Your task to perform on an android device: Show me popular videos on Youtube Image 0: 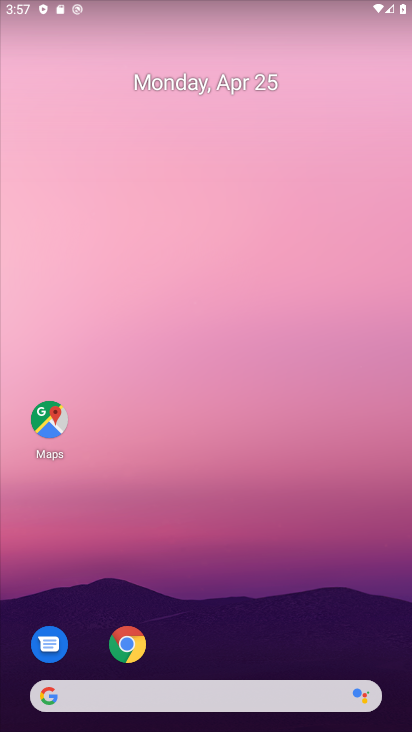
Step 0: drag from (222, 639) to (222, 146)
Your task to perform on an android device: Show me popular videos on Youtube Image 1: 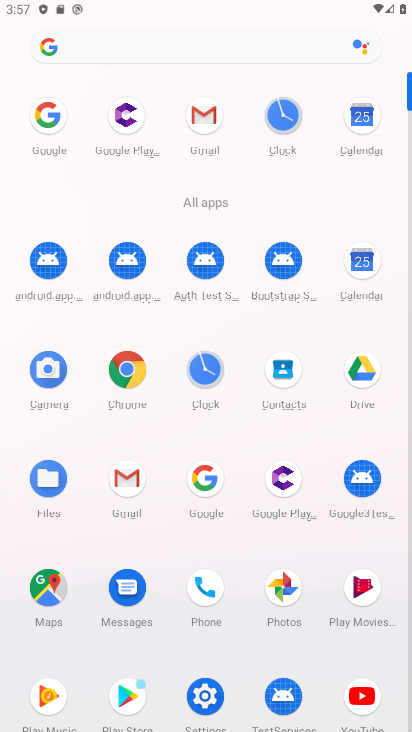
Step 1: click (348, 700)
Your task to perform on an android device: Show me popular videos on Youtube Image 2: 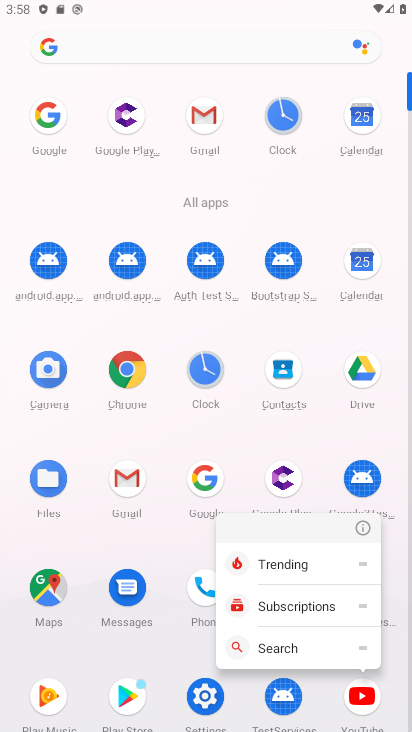
Step 2: click (358, 693)
Your task to perform on an android device: Show me popular videos on Youtube Image 3: 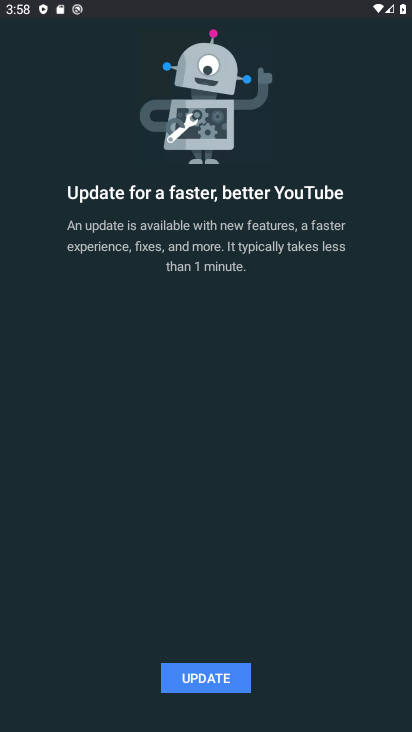
Step 3: click (182, 679)
Your task to perform on an android device: Show me popular videos on Youtube Image 4: 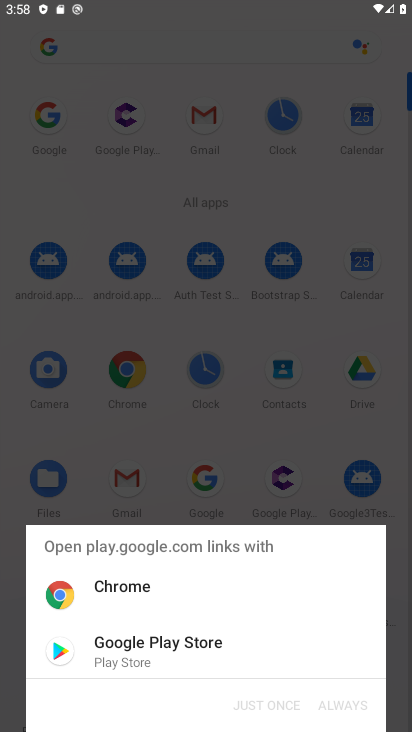
Step 4: click (125, 643)
Your task to perform on an android device: Show me popular videos on Youtube Image 5: 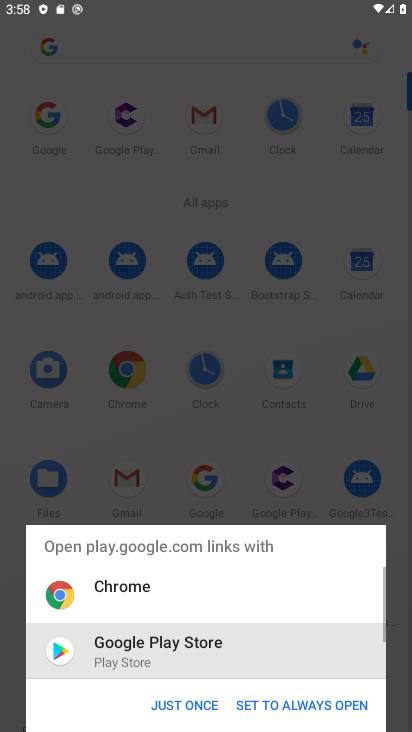
Step 5: drag from (258, 704) to (116, 707)
Your task to perform on an android device: Show me popular videos on Youtube Image 6: 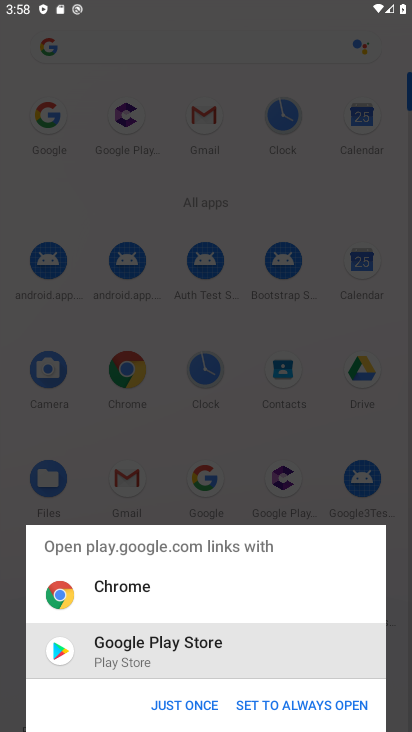
Step 6: click (185, 708)
Your task to perform on an android device: Show me popular videos on Youtube Image 7: 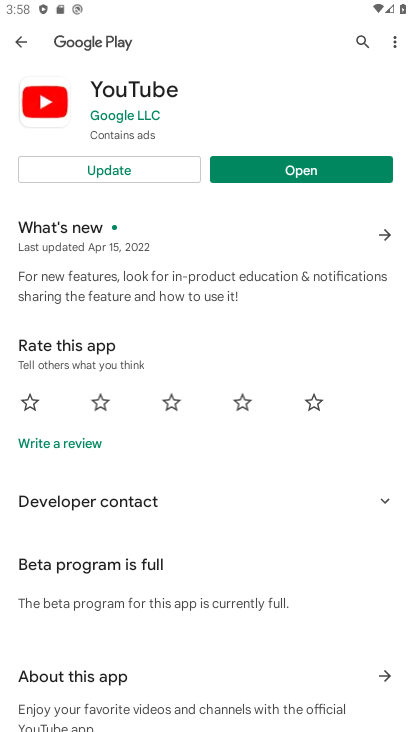
Step 7: click (178, 171)
Your task to perform on an android device: Show me popular videos on Youtube Image 8: 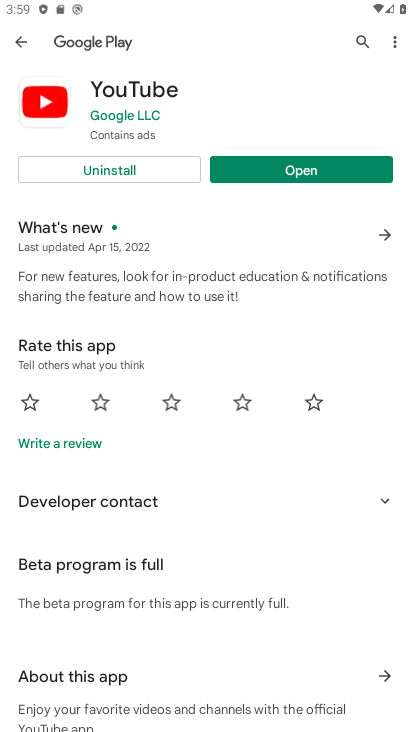
Step 8: click (273, 168)
Your task to perform on an android device: Show me popular videos on Youtube Image 9: 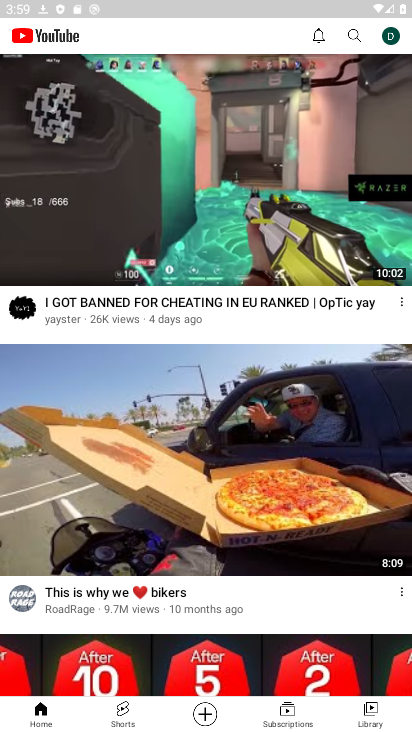
Step 9: click (349, 34)
Your task to perform on an android device: Show me popular videos on Youtube Image 10: 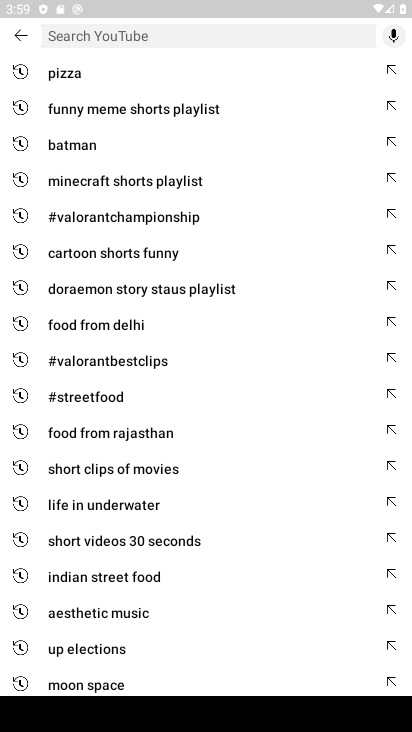
Step 10: type "popular videos"
Your task to perform on an android device: Show me popular videos on Youtube Image 11: 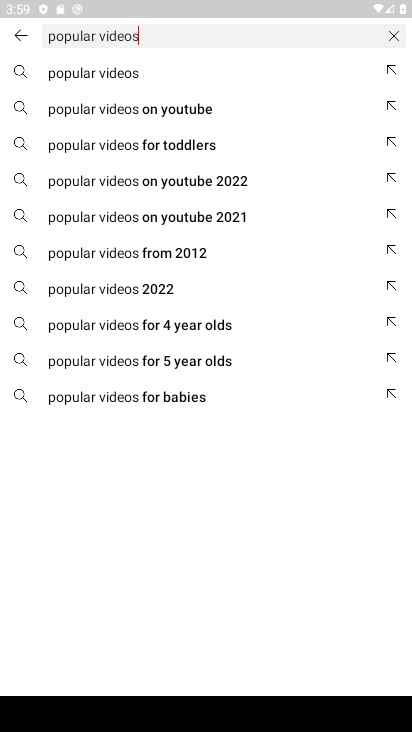
Step 11: click (181, 81)
Your task to perform on an android device: Show me popular videos on Youtube Image 12: 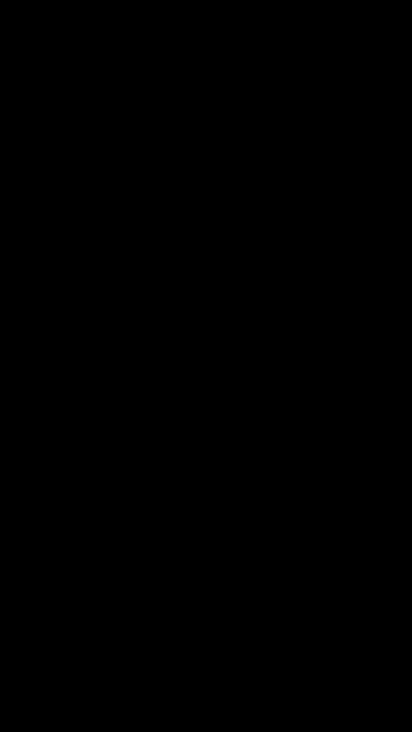
Step 12: task complete